Your task to perform on an android device: delete a single message in the gmail app Image 0: 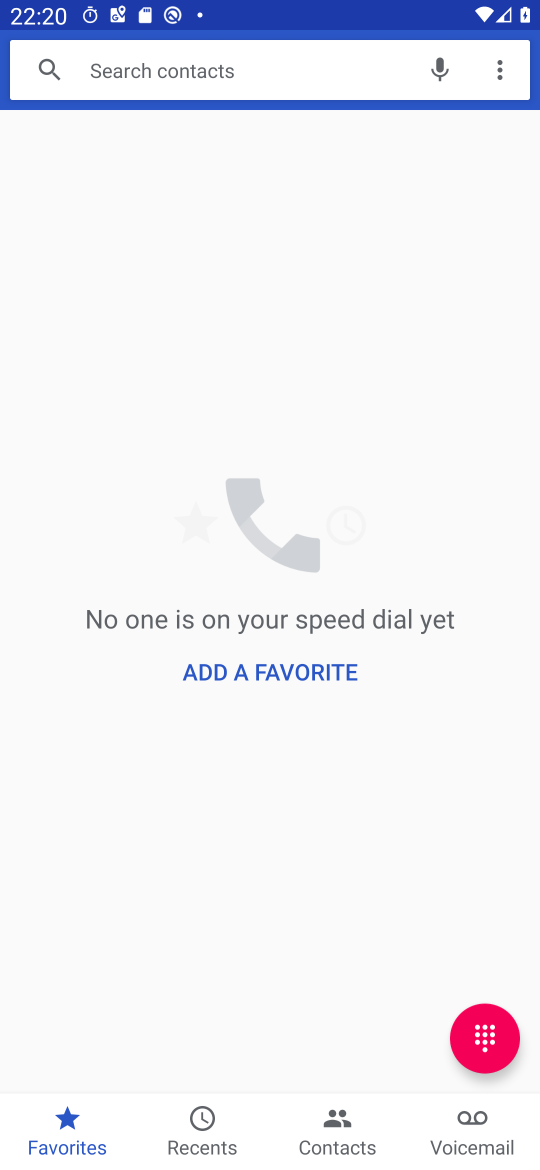
Step 0: press home button
Your task to perform on an android device: delete a single message in the gmail app Image 1: 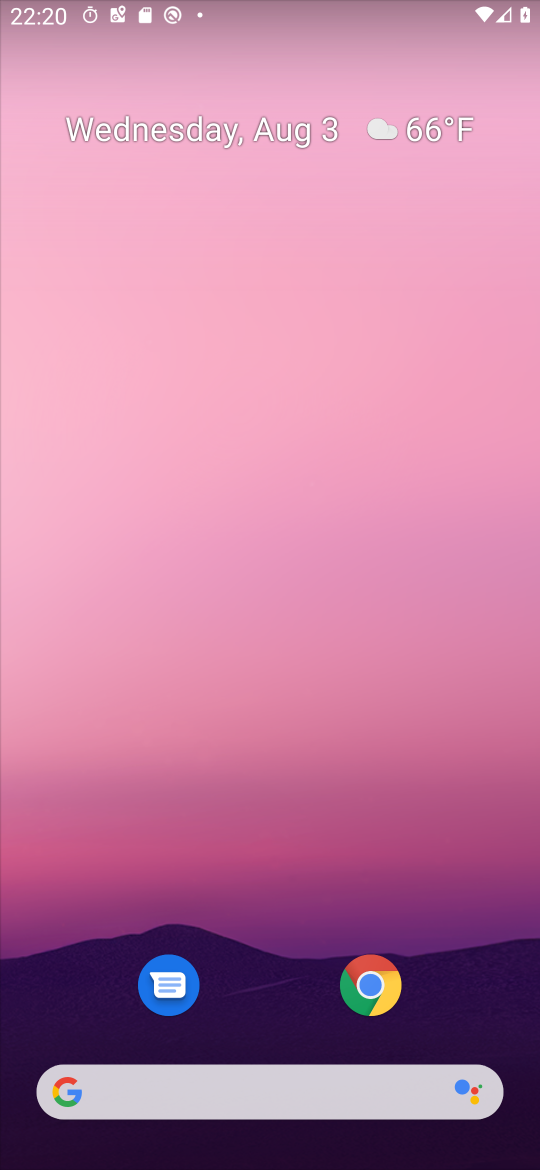
Step 1: drag from (237, 972) to (220, 357)
Your task to perform on an android device: delete a single message in the gmail app Image 2: 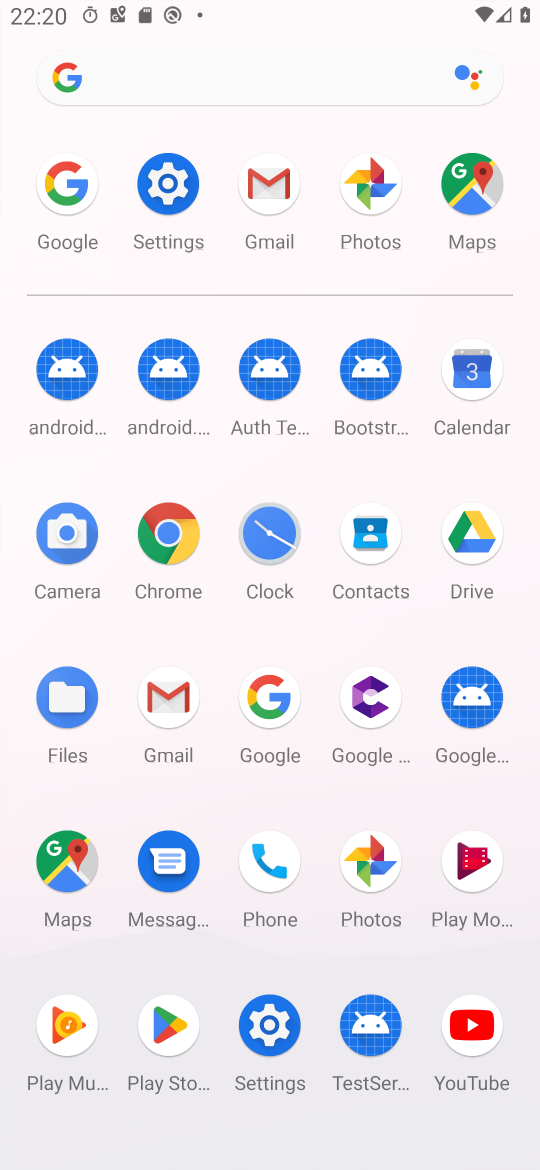
Step 2: click (261, 213)
Your task to perform on an android device: delete a single message in the gmail app Image 3: 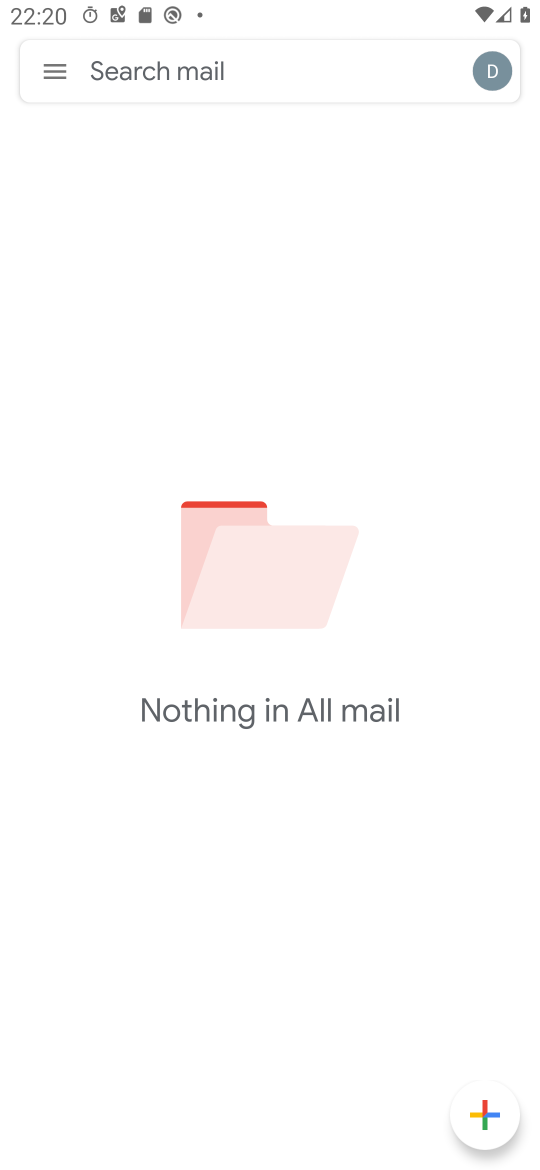
Step 3: click (48, 66)
Your task to perform on an android device: delete a single message in the gmail app Image 4: 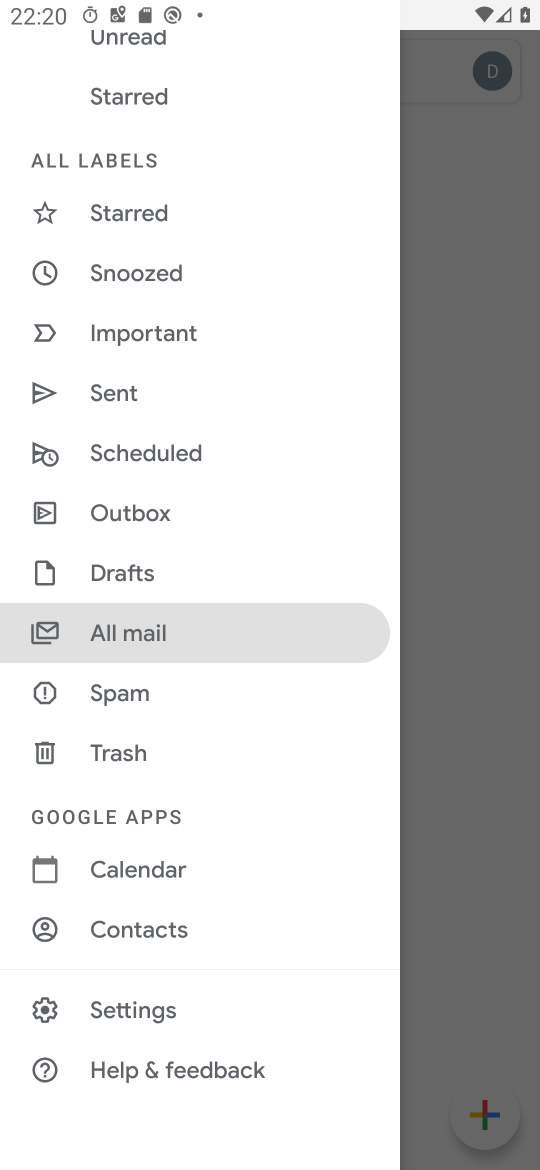
Step 4: click (142, 635)
Your task to perform on an android device: delete a single message in the gmail app Image 5: 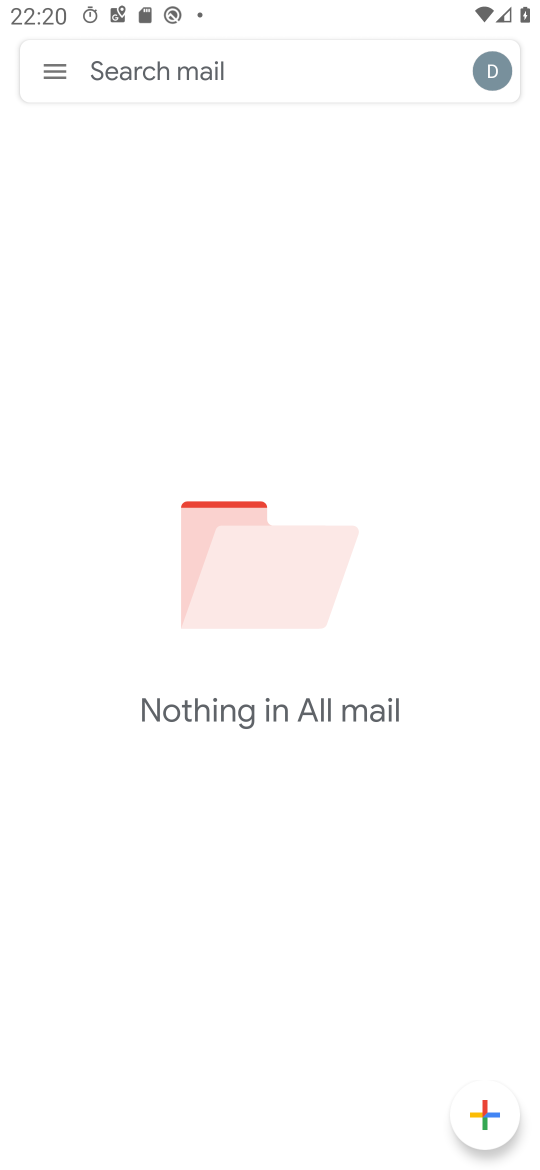
Step 5: task complete